Your task to perform on an android device: Add "razer naga" to the cart on costco, then select checkout. Image 0: 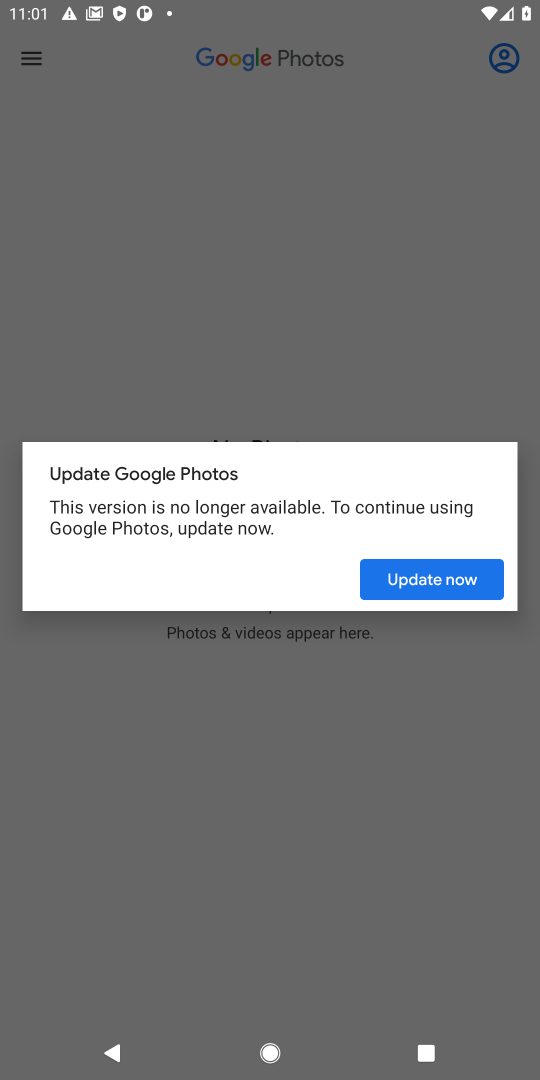
Step 0: press home button
Your task to perform on an android device: Add "razer naga" to the cart on costco, then select checkout. Image 1: 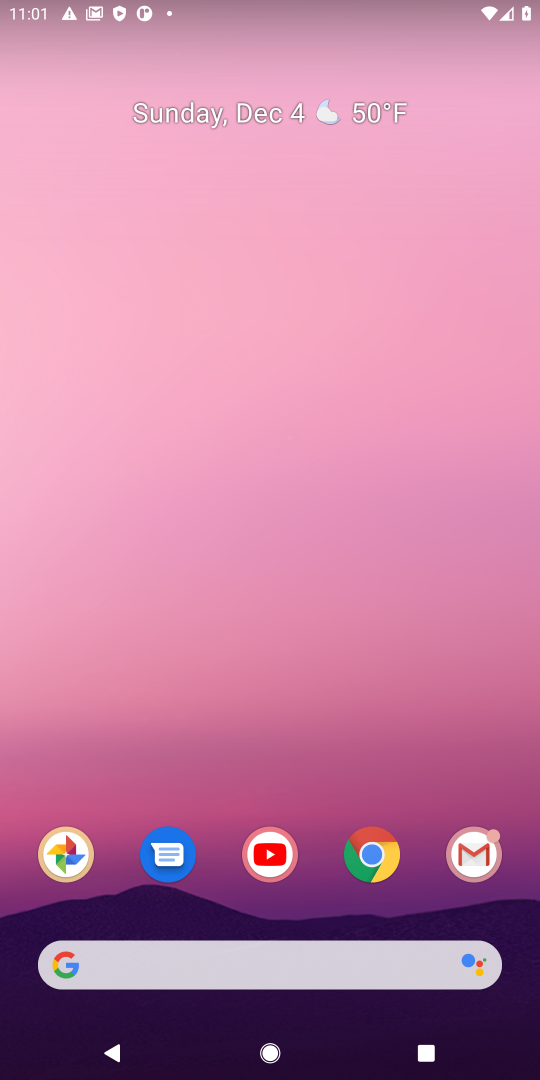
Step 1: task complete